Your task to perform on an android device: Go to ESPN.com Image 0: 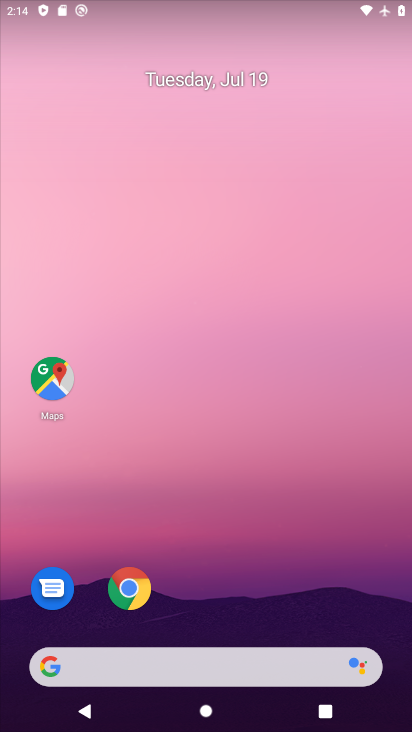
Step 0: click (47, 674)
Your task to perform on an android device: Go to ESPN.com Image 1: 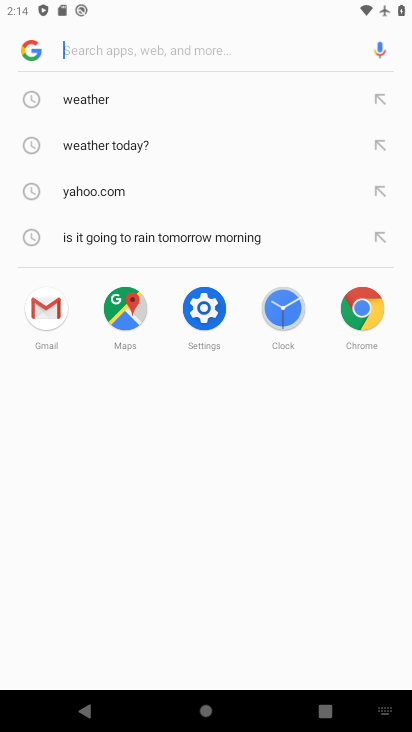
Step 1: type "ESPN.com"
Your task to perform on an android device: Go to ESPN.com Image 2: 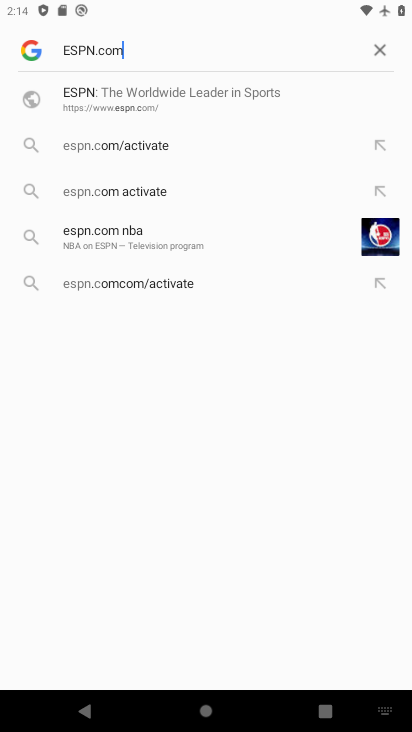
Step 2: press enter
Your task to perform on an android device: Go to ESPN.com Image 3: 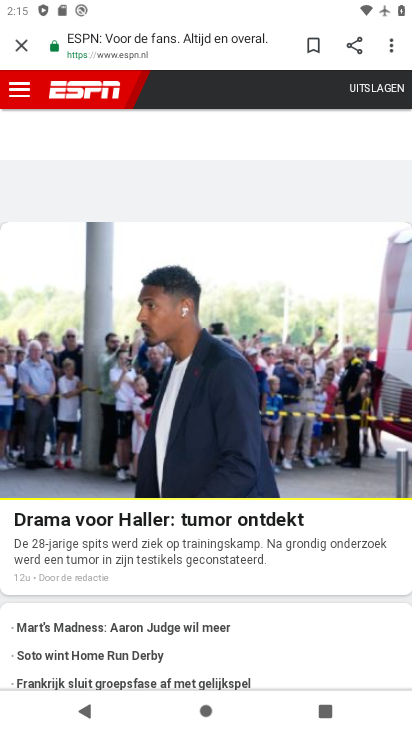
Step 3: task complete